Your task to perform on an android device: Open Google Chrome Image 0: 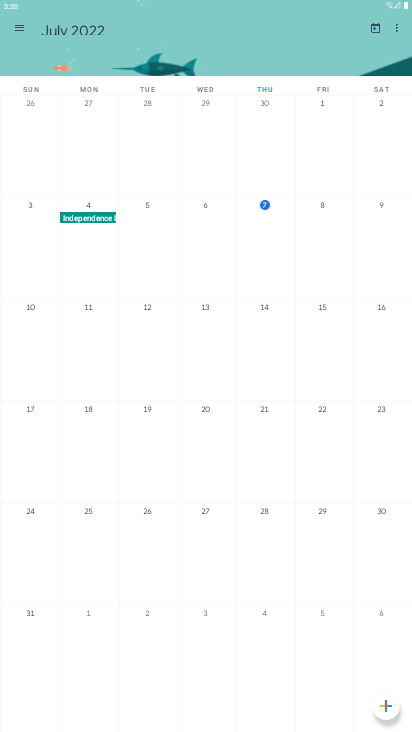
Step 0: press home button
Your task to perform on an android device: Open Google Chrome Image 1: 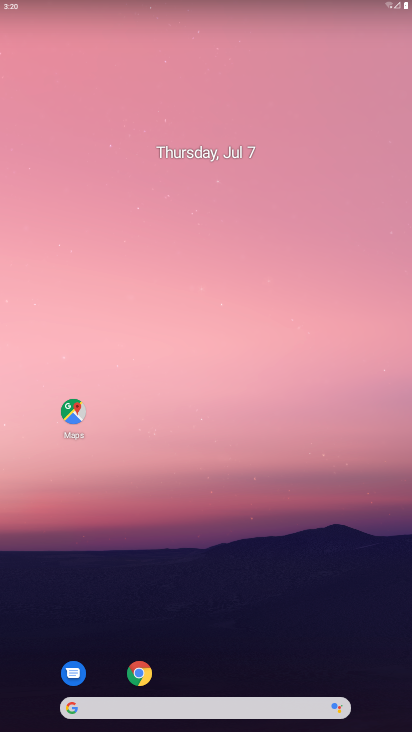
Step 1: click (138, 676)
Your task to perform on an android device: Open Google Chrome Image 2: 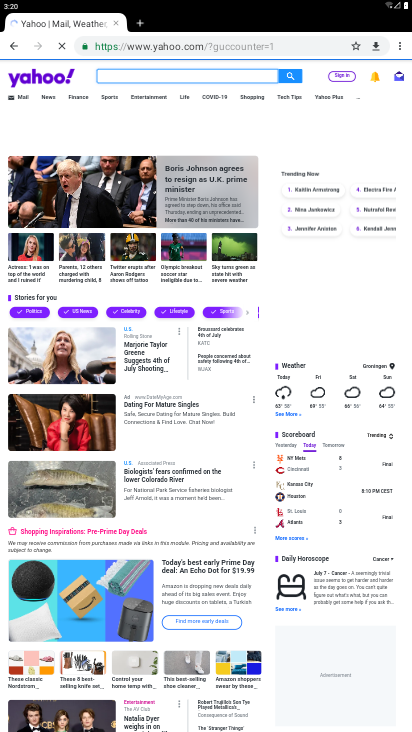
Step 2: task complete